Your task to perform on an android device: Open notification settings Image 0: 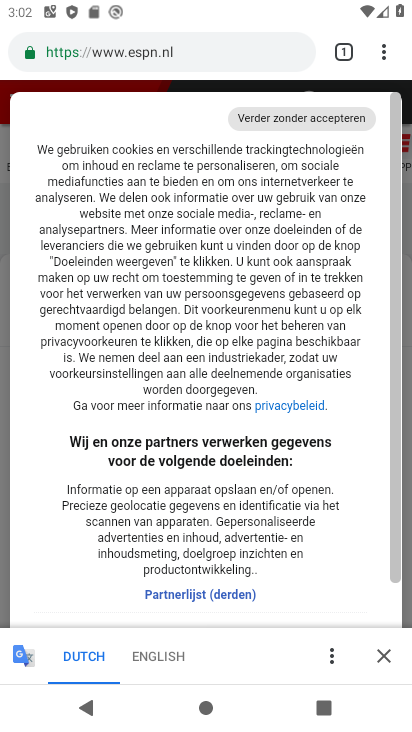
Step 0: press home button
Your task to perform on an android device: Open notification settings Image 1: 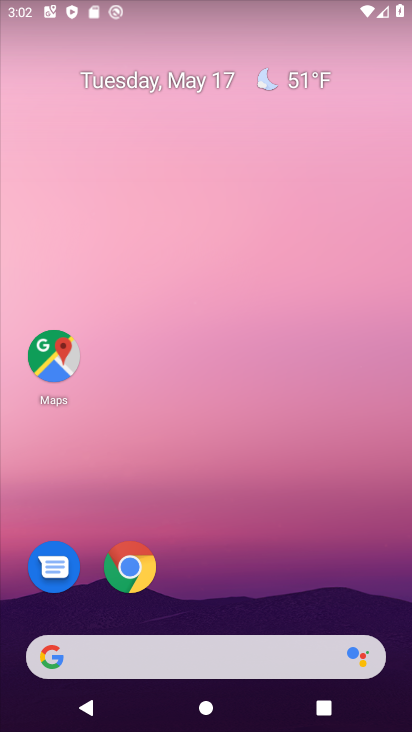
Step 1: drag from (202, 648) to (186, 170)
Your task to perform on an android device: Open notification settings Image 2: 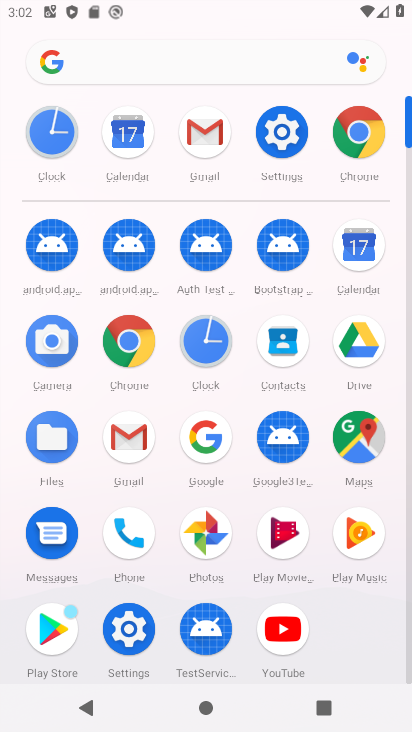
Step 2: click (273, 151)
Your task to perform on an android device: Open notification settings Image 3: 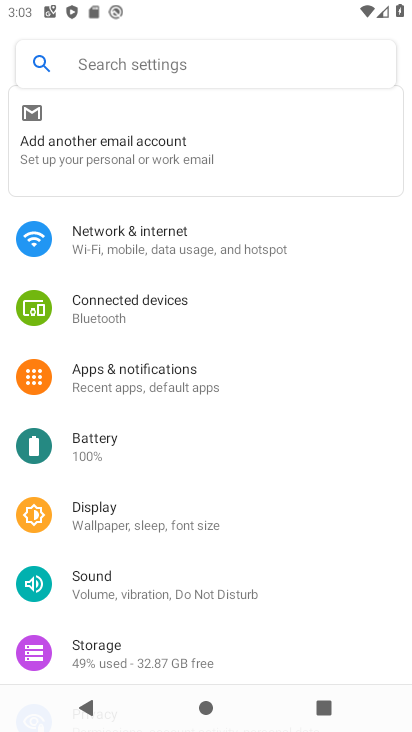
Step 3: click (145, 377)
Your task to perform on an android device: Open notification settings Image 4: 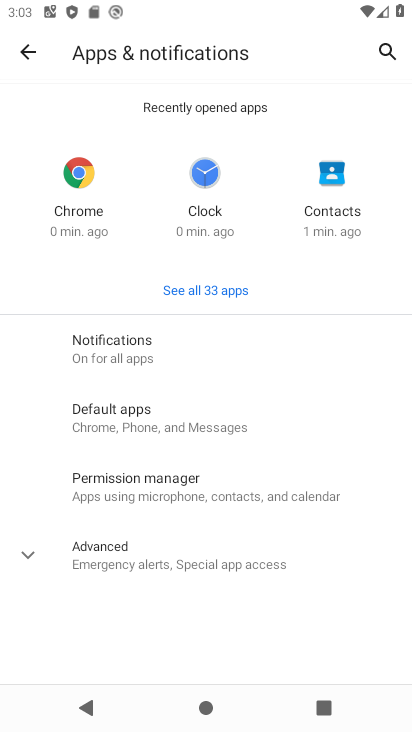
Step 4: task complete